Your task to perform on an android device: change timer sound Image 0: 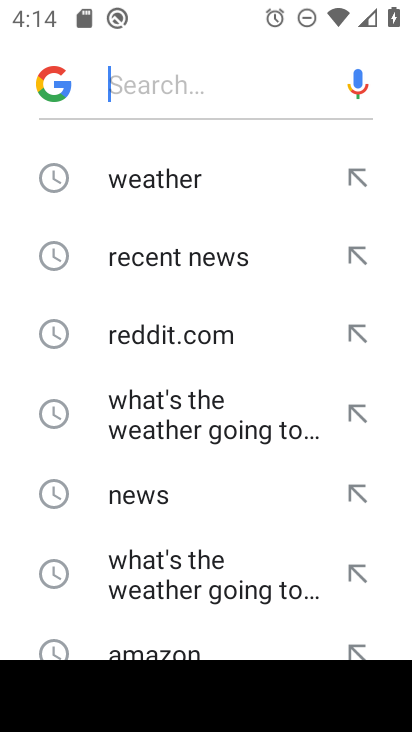
Step 0: press back button
Your task to perform on an android device: change timer sound Image 1: 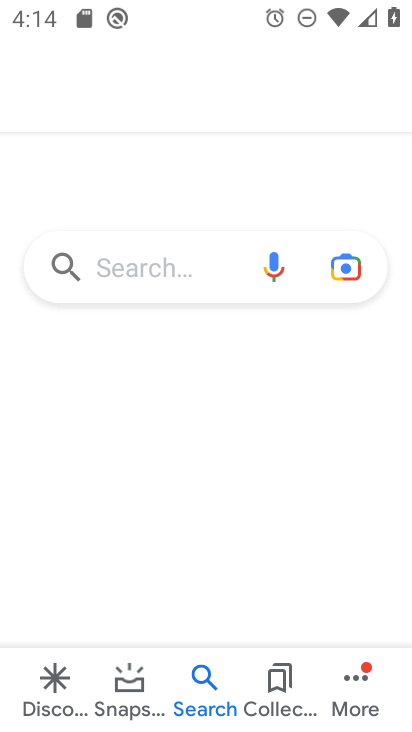
Step 1: press back button
Your task to perform on an android device: change timer sound Image 2: 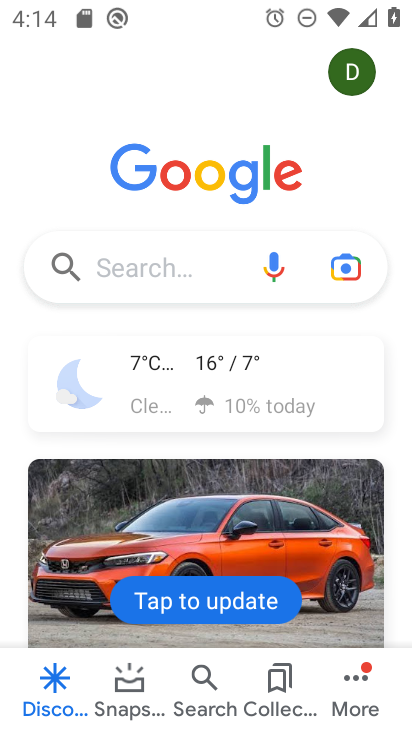
Step 2: press back button
Your task to perform on an android device: change timer sound Image 3: 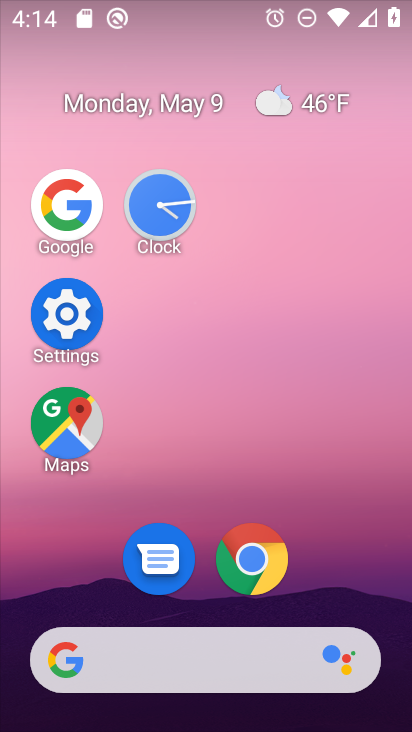
Step 3: click (173, 221)
Your task to perform on an android device: change timer sound Image 4: 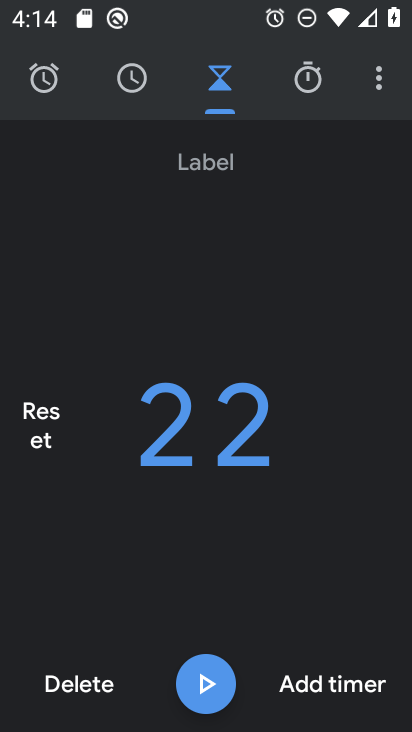
Step 4: click (376, 82)
Your task to perform on an android device: change timer sound Image 5: 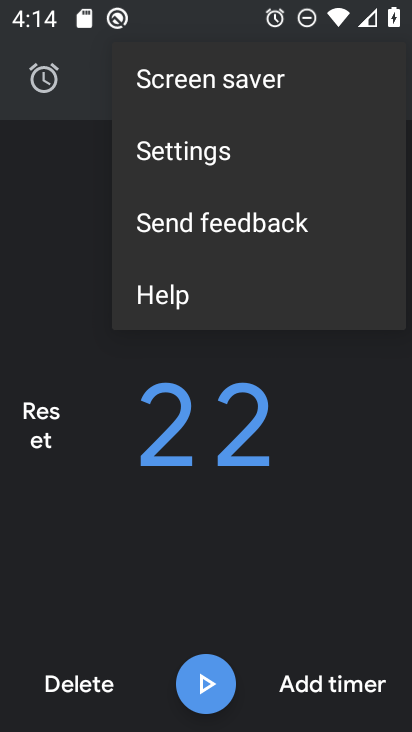
Step 5: click (217, 160)
Your task to perform on an android device: change timer sound Image 6: 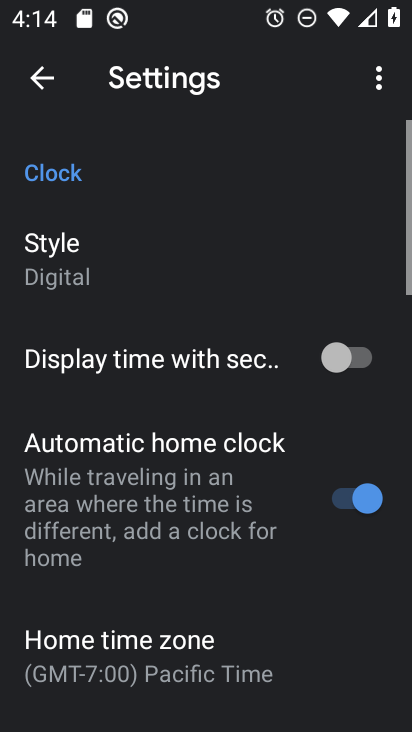
Step 6: drag from (228, 559) to (223, 180)
Your task to perform on an android device: change timer sound Image 7: 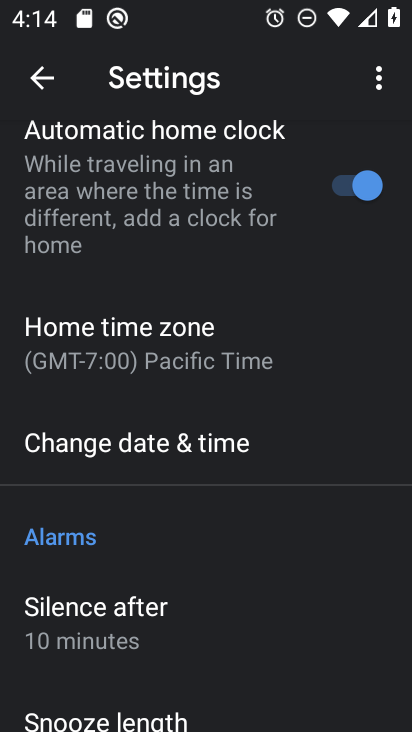
Step 7: drag from (220, 605) to (262, 282)
Your task to perform on an android device: change timer sound Image 8: 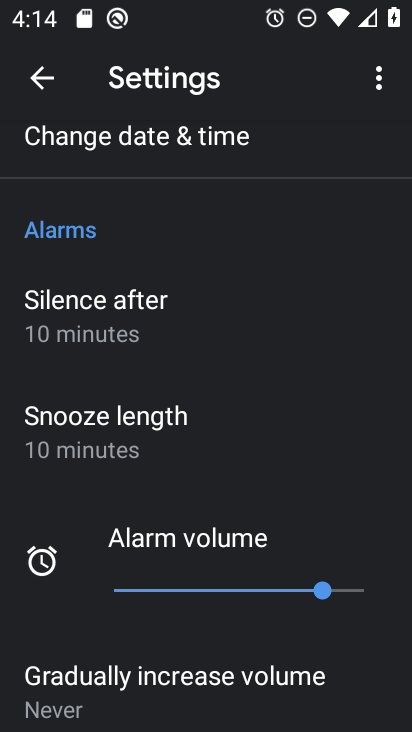
Step 8: drag from (240, 628) to (255, 239)
Your task to perform on an android device: change timer sound Image 9: 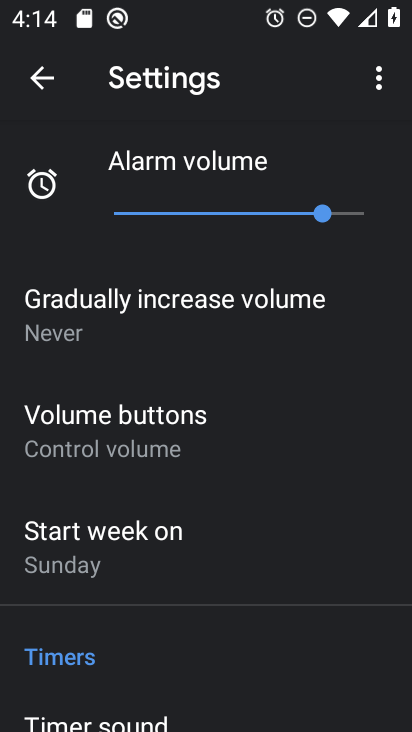
Step 9: drag from (248, 493) to (292, 183)
Your task to perform on an android device: change timer sound Image 10: 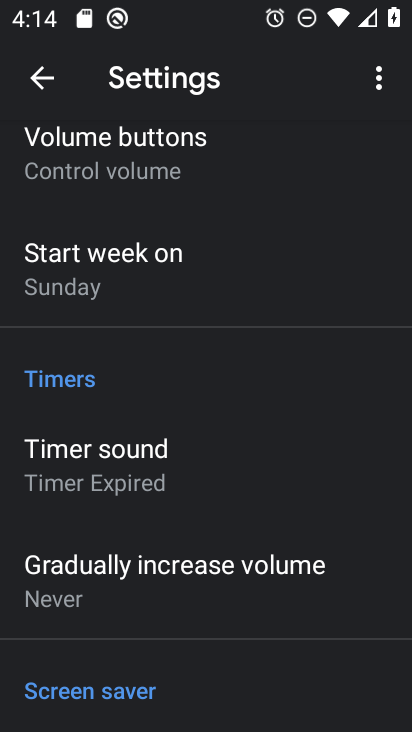
Step 10: click (100, 458)
Your task to perform on an android device: change timer sound Image 11: 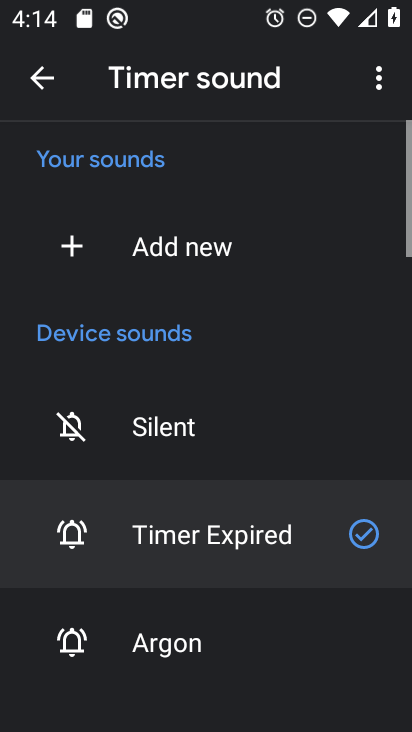
Step 11: click (152, 641)
Your task to perform on an android device: change timer sound Image 12: 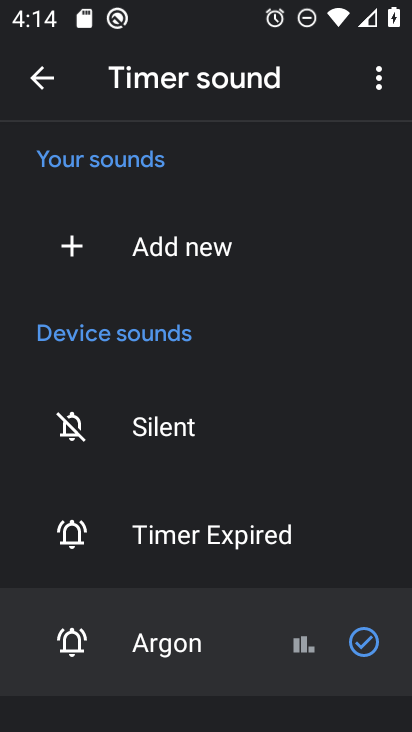
Step 12: task complete